Your task to perform on an android device: Find coffee shops on Maps Image 0: 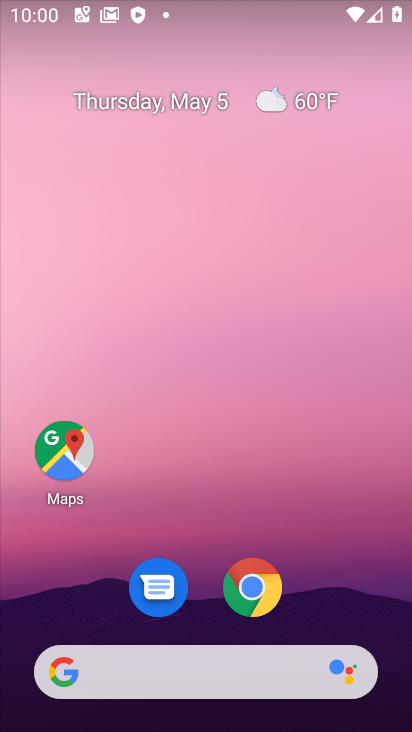
Step 0: click (60, 452)
Your task to perform on an android device: Find coffee shops on Maps Image 1: 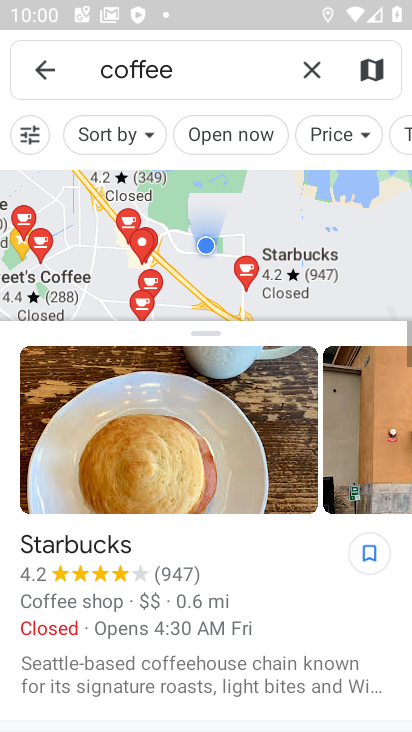
Step 1: task complete